Your task to perform on an android device: Go to notification settings Image 0: 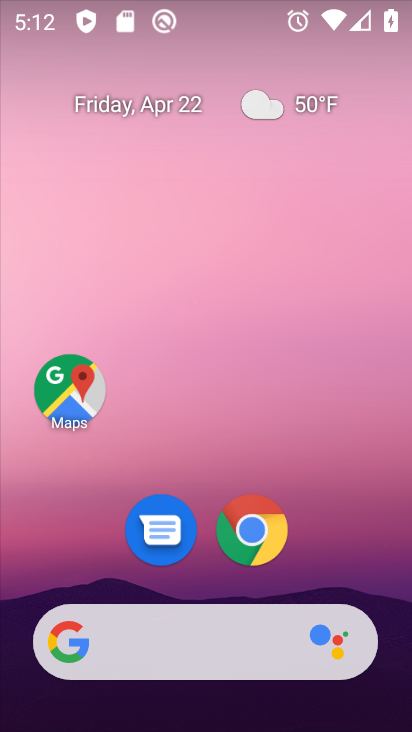
Step 0: drag from (335, 533) to (314, 169)
Your task to perform on an android device: Go to notification settings Image 1: 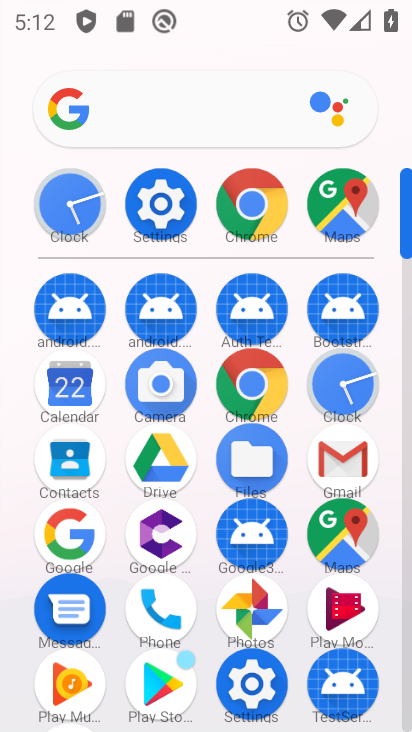
Step 1: click (155, 203)
Your task to perform on an android device: Go to notification settings Image 2: 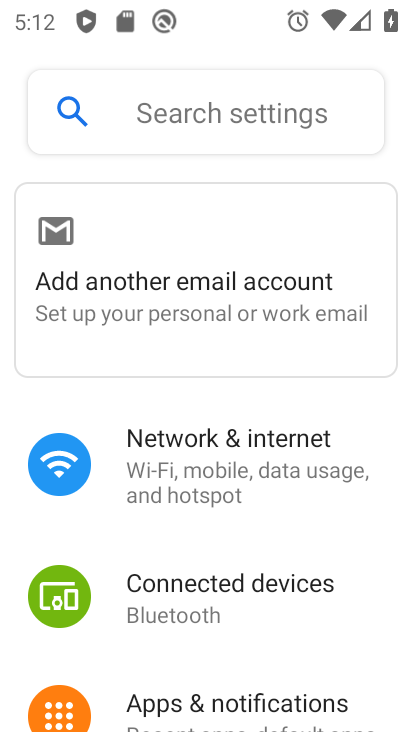
Step 2: drag from (333, 638) to (353, 310)
Your task to perform on an android device: Go to notification settings Image 3: 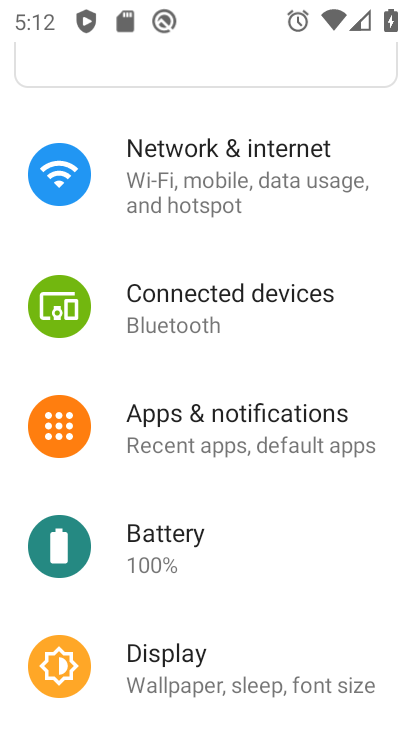
Step 3: click (293, 415)
Your task to perform on an android device: Go to notification settings Image 4: 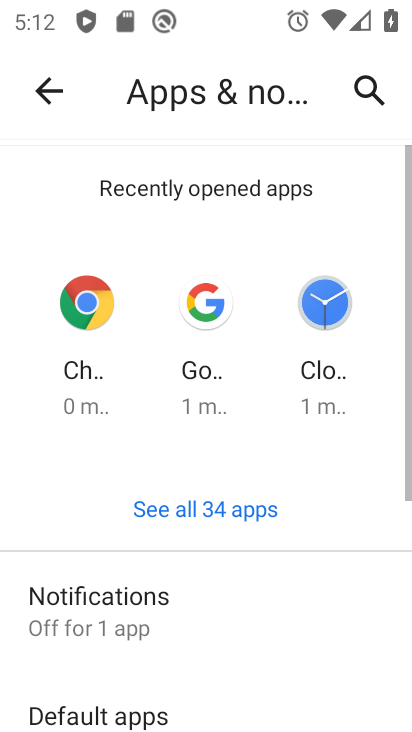
Step 4: click (113, 601)
Your task to perform on an android device: Go to notification settings Image 5: 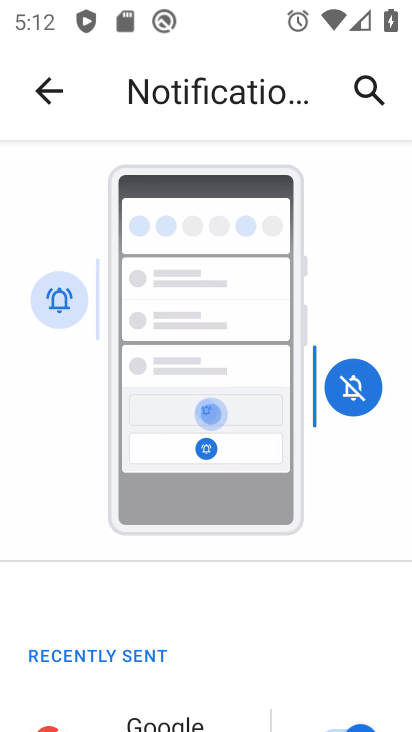
Step 5: task complete